Your task to perform on an android device: Check the news Image 0: 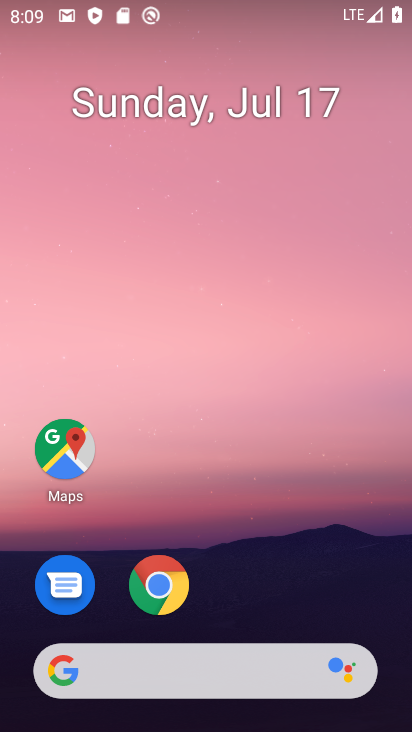
Step 0: click (163, 677)
Your task to perform on an android device: Check the news Image 1: 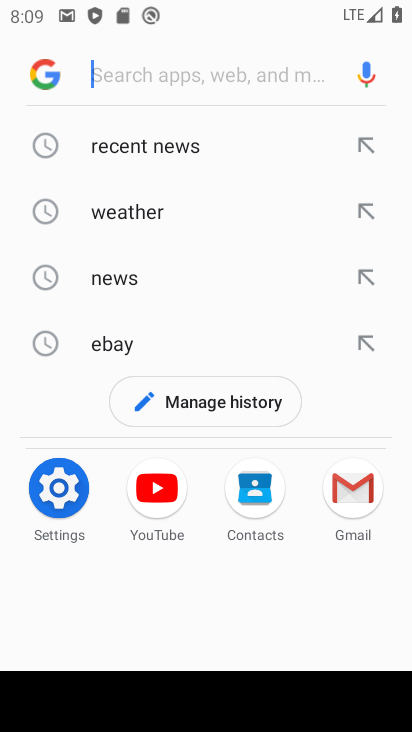
Step 1: click (107, 276)
Your task to perform on an android device: Check the news Image 2: 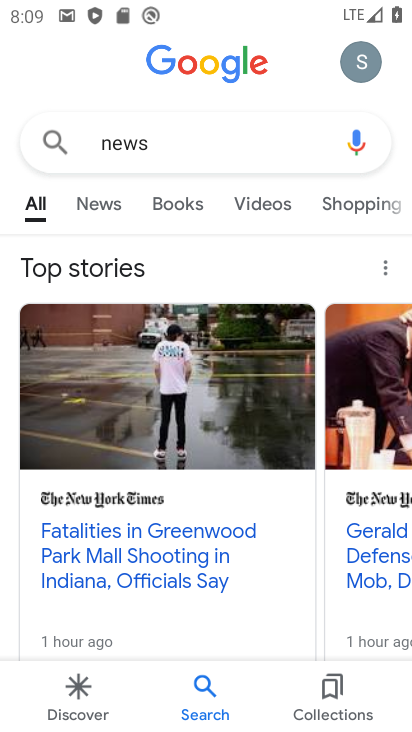
Step 2: click (101, 205)
Your task to perform on an android device: Check the news Image 3: 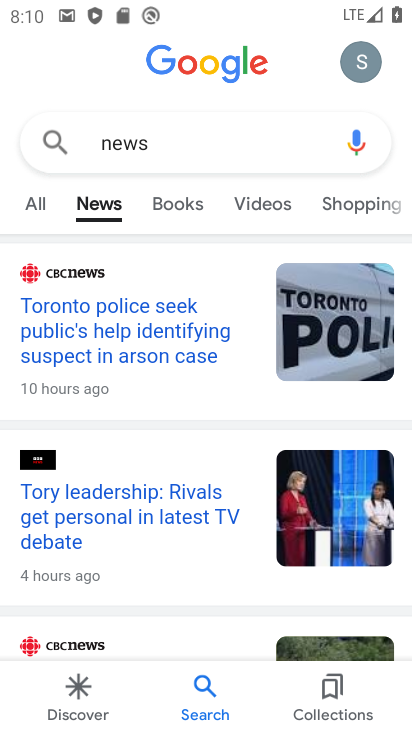
Step 3: task complete